Your task to perform on an android device: turn off sleep mode Image 0: 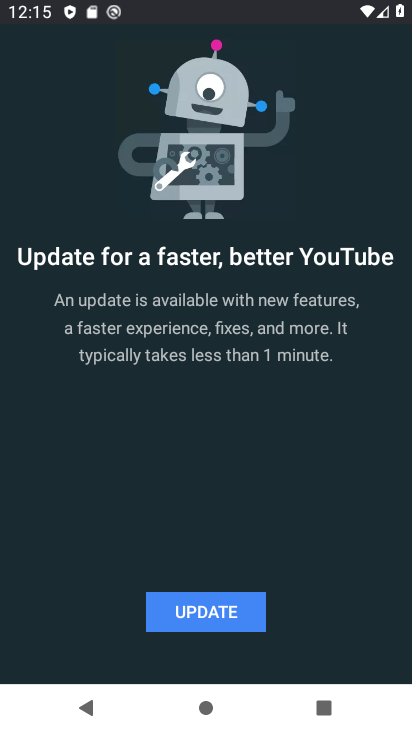
Step 0: press home button
Your task to perform on an android device: turn off sleep mode Image 1: 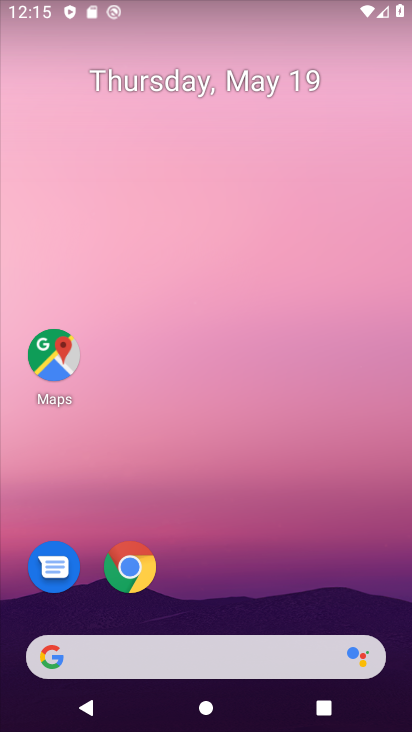
Step 1: drag from (261, 485) to (263, 53)
Your task to perform on an android device: turn off sleep mode Image 2: 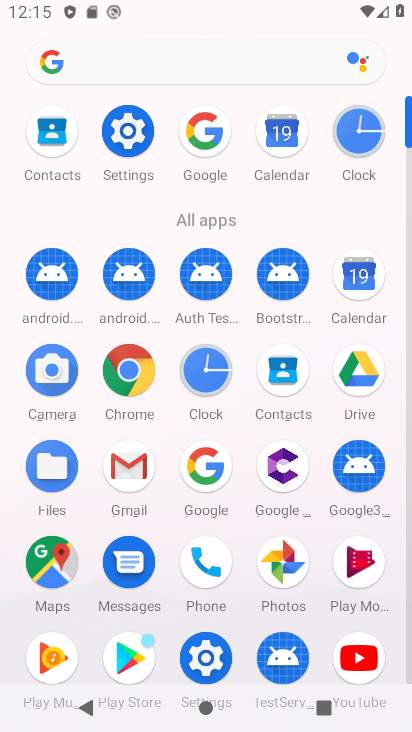
Step 2: click (126, 122)
Your task to perform on an android device: turn off sleep mode Image 3: 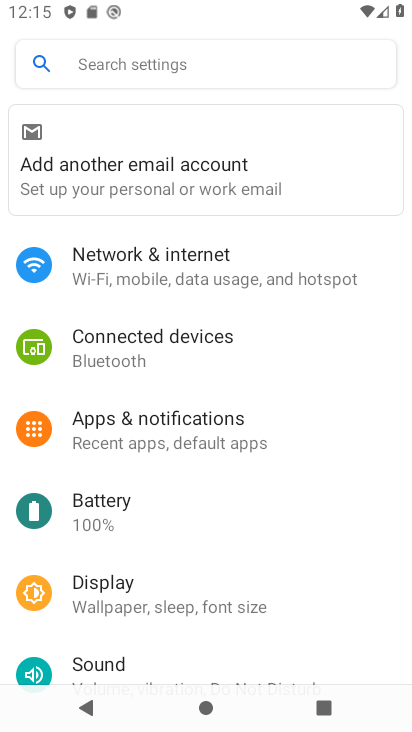
Step 3: click (158, 582)
Your task to perform on an android device: turn off sleep mode Image 4: 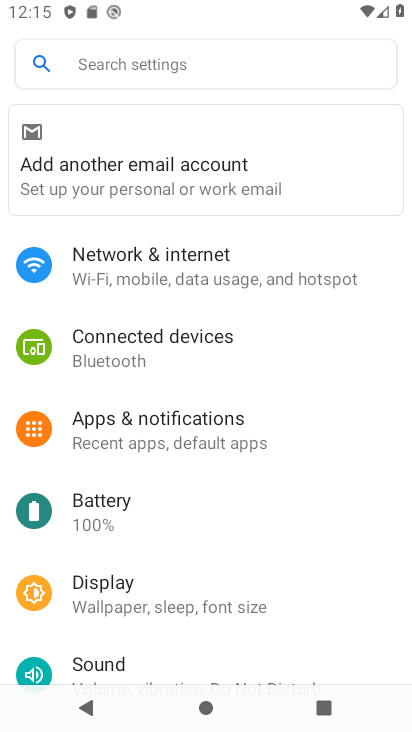
Step 4: click (146, 590)
Your task to perform on an android device: turn off sleep mode Image 5: 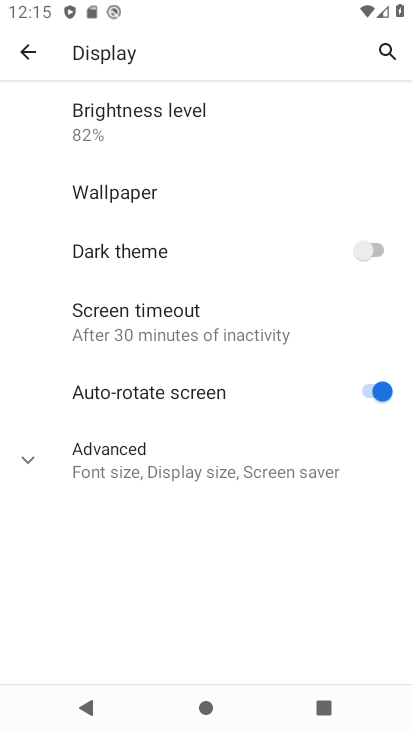
Step 5: click (26, 453)
Your task to perform on an android device: turn off sleep mode Image 6: 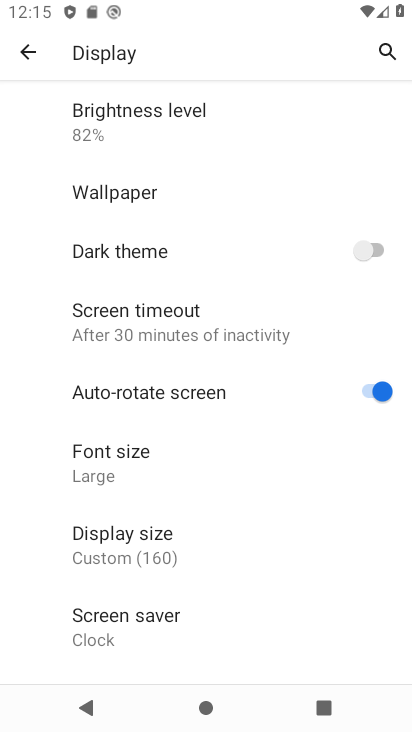
Step 6: task complete